Your task to perform on an android device: turn on notifications settings in the gmail app Image 0: 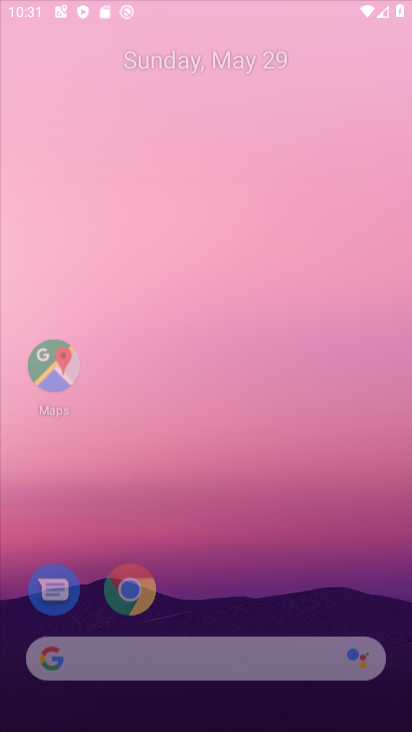
Step 0: drag from (203, 635) to (141, 205)
Your task to perform on an android device: turn on notifications settings in the gmail app Image 1: 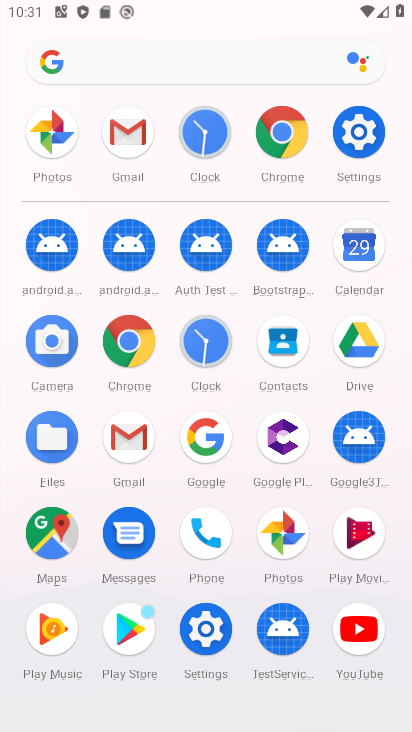
Step 1: click (122, 441)
Your task to perform on an android device: turn on notifications settings in the gmail app Image 2: 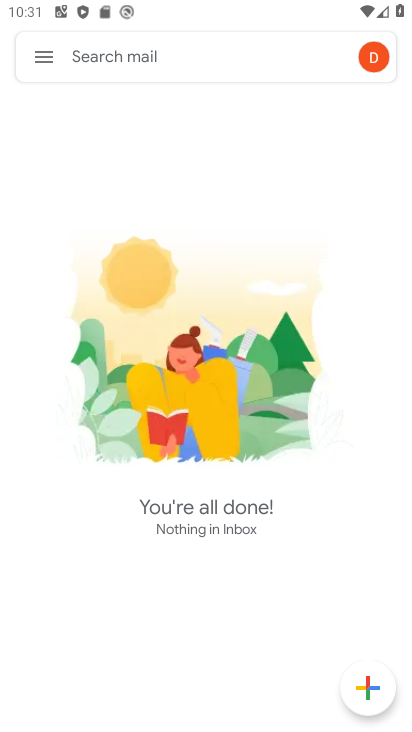
Step 2: click (42, 64)
Your task to perform on an android device: turn on notifications settings in the gmail app Image 3: 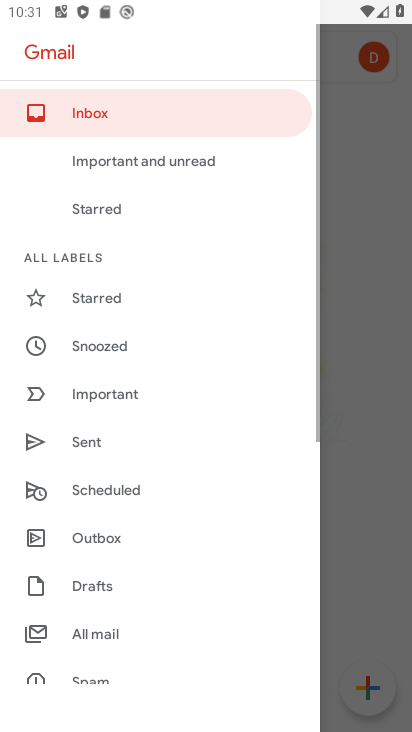
Step 3: drag from (82, 597) to (57, 57)
Your task to perform on an android device: turn on notifications settings in the gmail app Image 4: 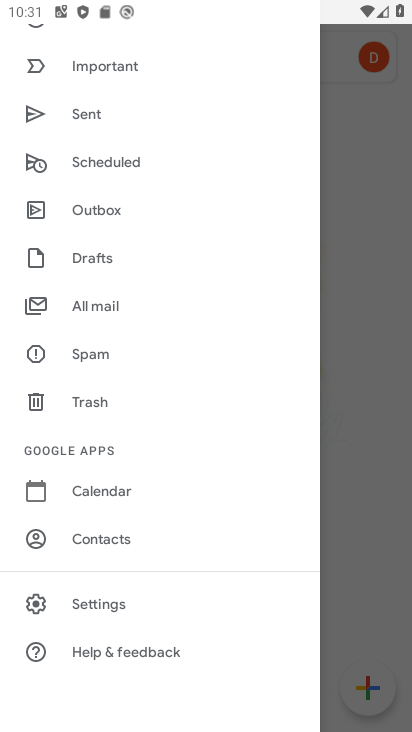
Step 4: click (96, 600)
Your task to perform on an android device: turn on notifications settings in the gmail app Image 5: 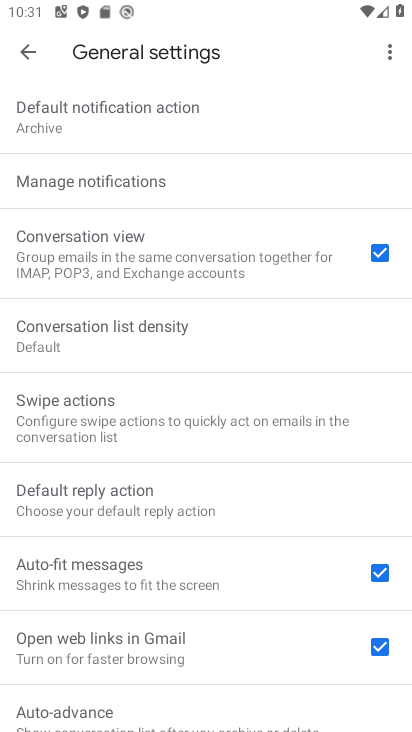
Step 5: click (116, 193)
Your task to perform on an android device: turn on notifications settings in the gmail app Image 6: 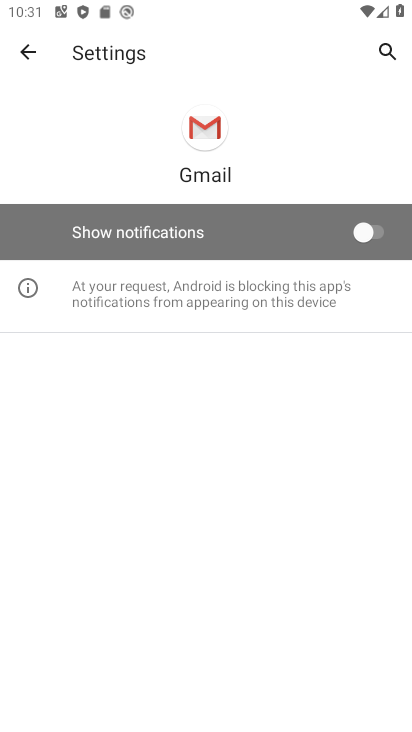
Step 6: click (367, 224)
Your task to perform on an android device: turn on notifications settings in the gmail app Image 7: 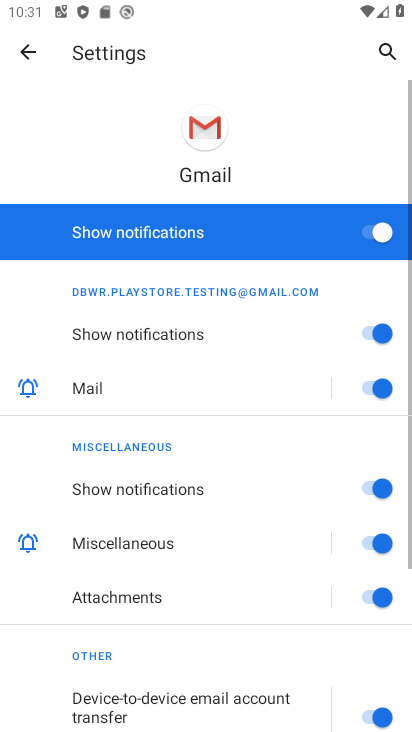
Step 7: task complete